Your task to perform on an android device: Go to accessibility settings Image 0: 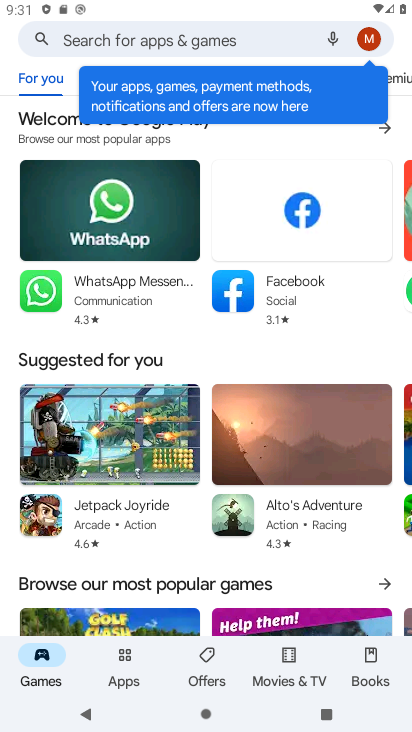
Step 0: press back button
Your task to perform on an android device: Go to accessibility settings Image 1: 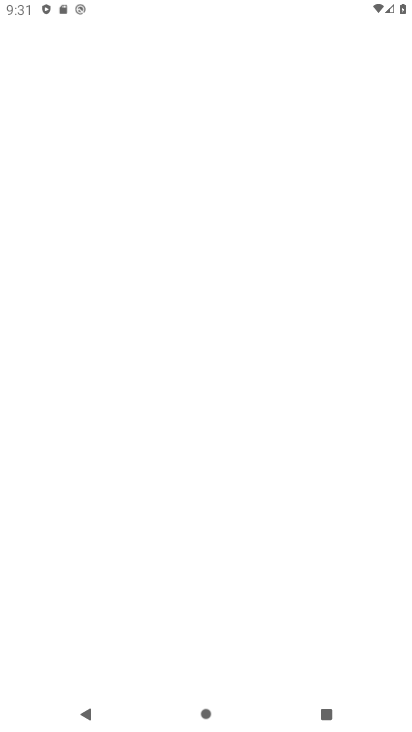
Step 1: press back button
Your task to perform on an android device: Go to accessibility settings Image 2: 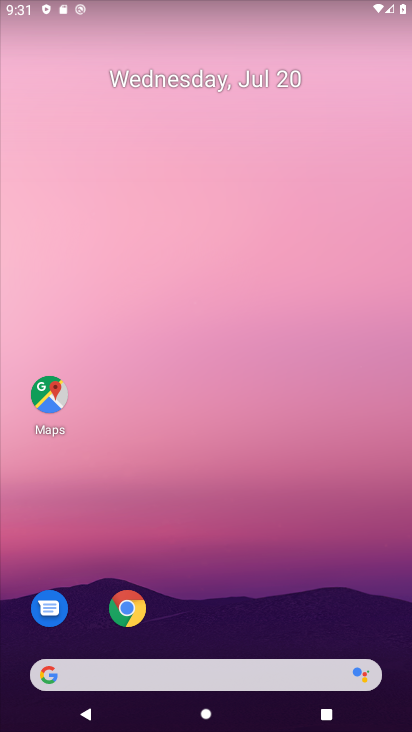
Step 2: drag from (273, 676) to (247, 58)
Your task to perform on an android device: Go to accessibility settings Image 3: 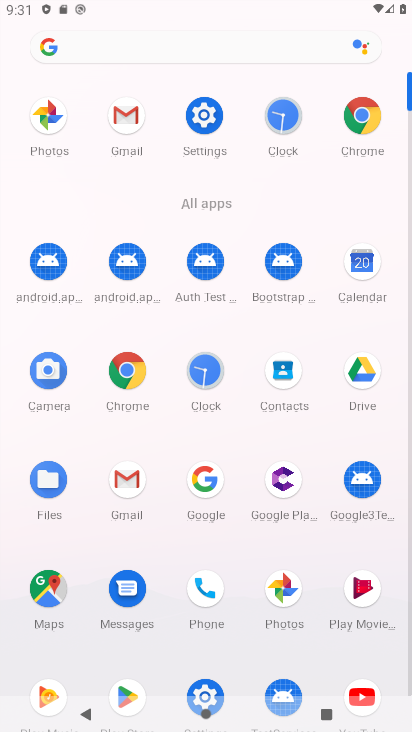
Step 3: click (198, 118)
Your task to perform on an android device: Go to accessibility settings Image 4: 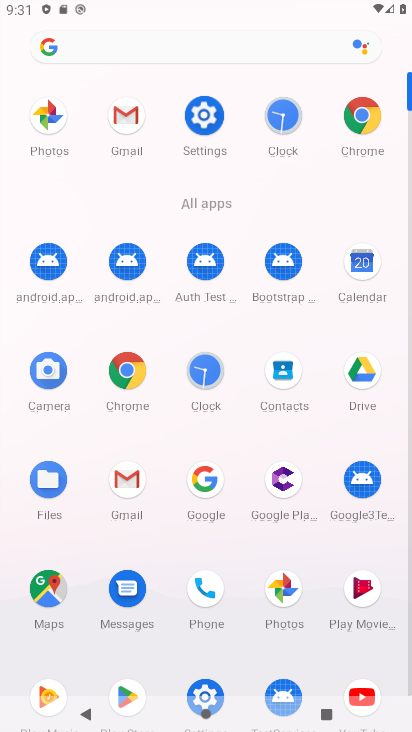
Step 4: click (198, 117)
Your task to perform on an android device: Go to accessibility settings Image 5: 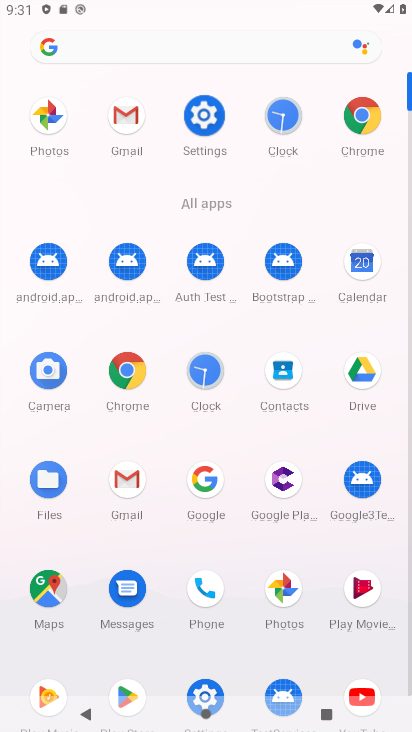
Step 5: click (198, 117)
Your task to perform on an android device: Go to accessibility settings Image 6: 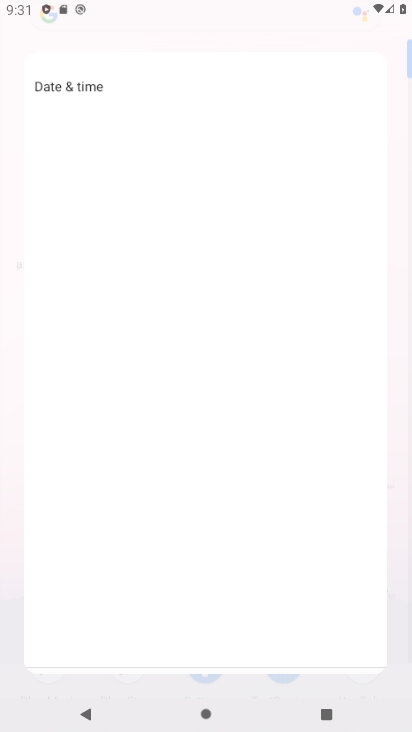
Step 6: click (198, 117)
Your task to perform on an android device: Go to accessibility settings Image 7: 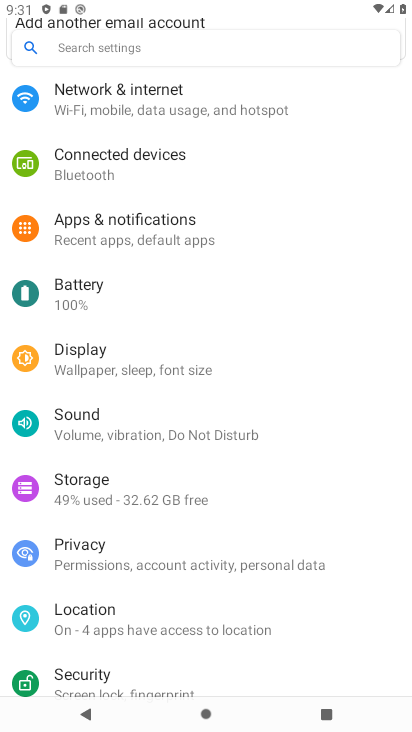
Step 7: drag from (109, 584) to (108, 205)
Your task to perform on an android device: Go to accessibility settings Image 8: 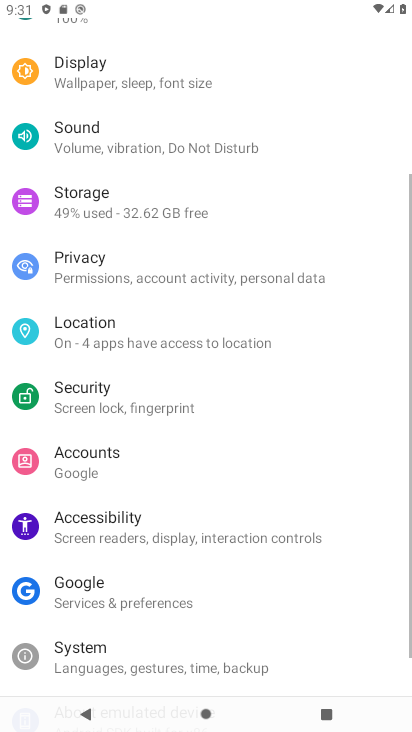
Step 8: drag from (169, 470) to (159, 184)
Your task to perform on an android device: Go to accessibility settings Image 9: 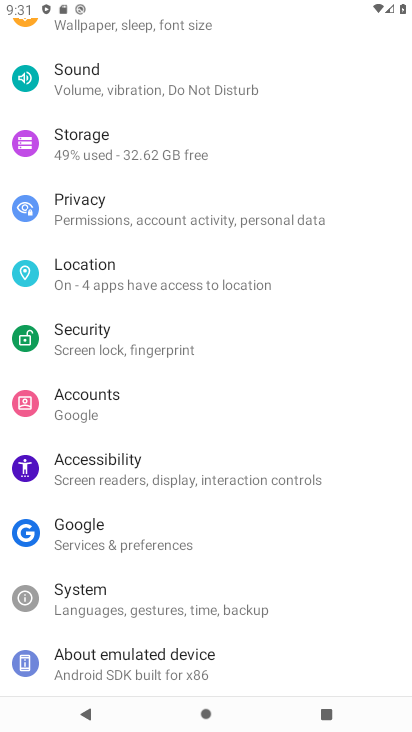
Step 9: click (119, 464)
Your task to perform on an android device: Go to accessibility settings Image 10: 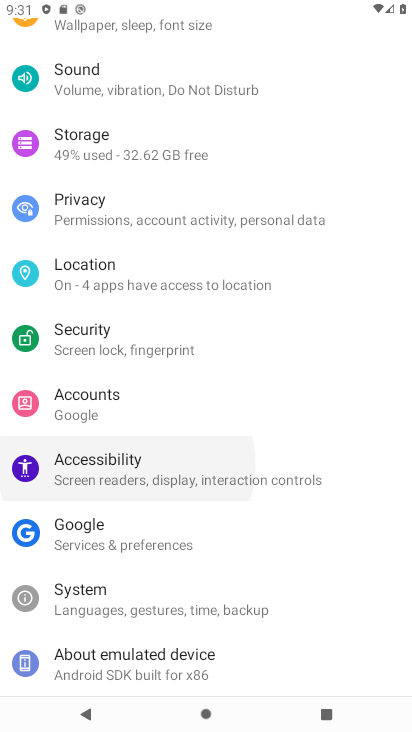
Step 10: click (121, 462)
Your task to perform on an android device: Go to accessibility settings Image 11: 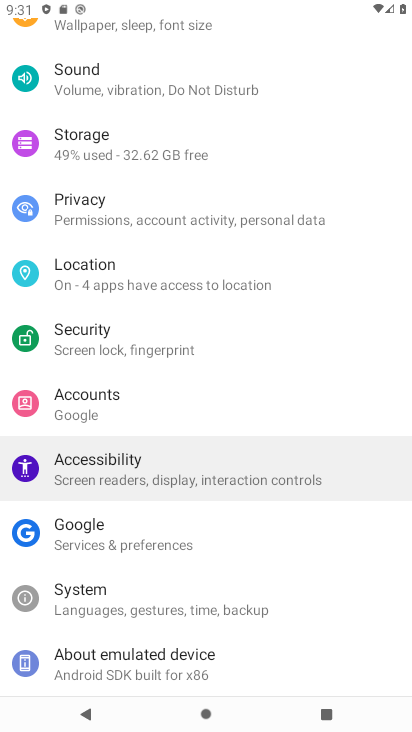
Step 11: click (128, 465)
Your task to perform on an android device: Go to accessibility settings Image 12: 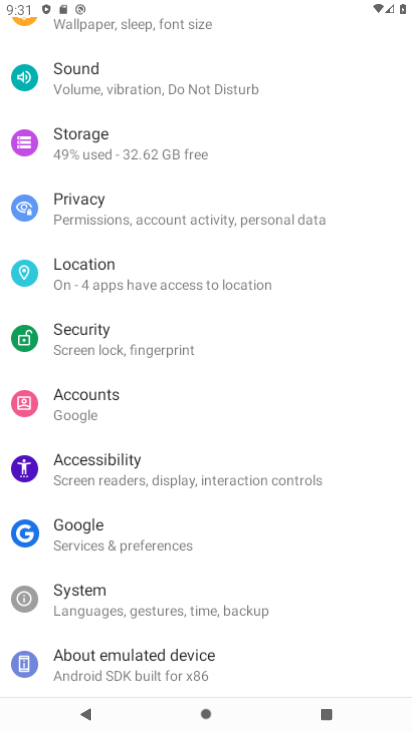
Step 12: click (129, 466)
Your task to perform on an android device: Go to accessibility settings Image 13: 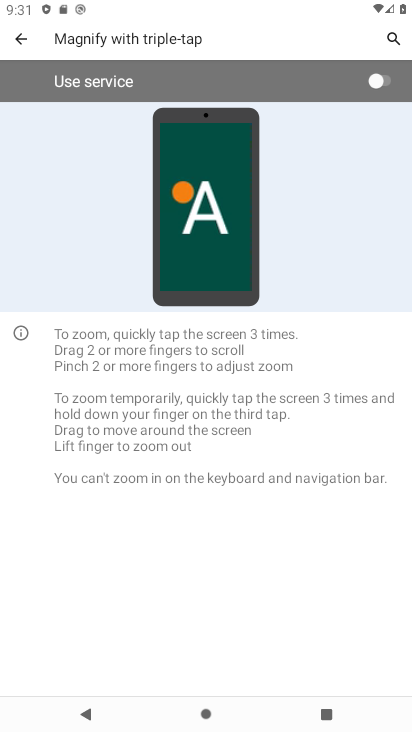
Step 13: task complete